Your task to perform on an android device: Search for Mexican restaurants on Maps Image 0: 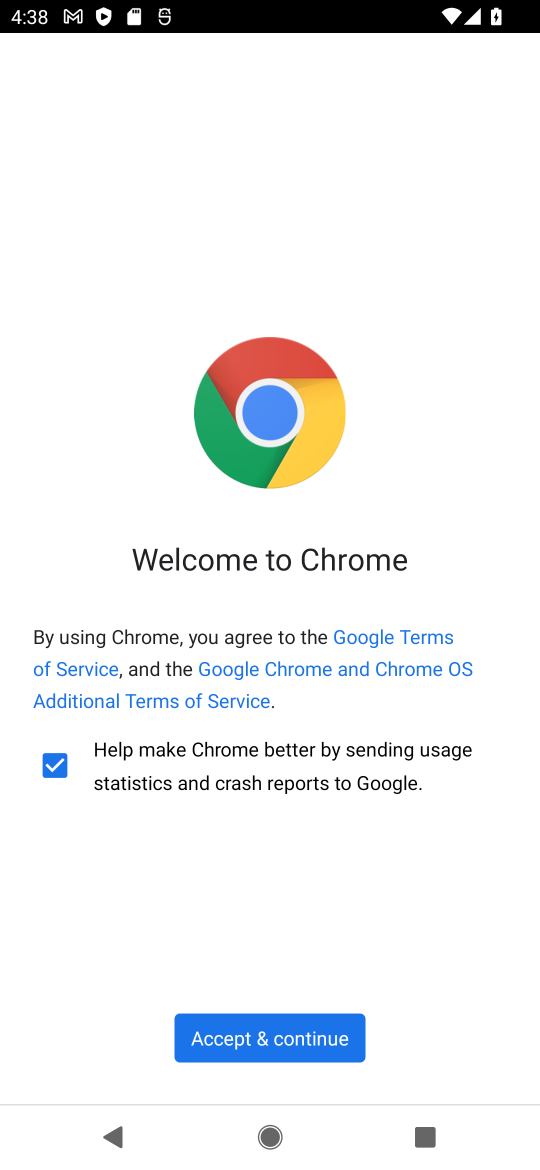
Step 0: press home button
Your task to perform on an android device: Search for Mexican restaurants on Maps Image 1: 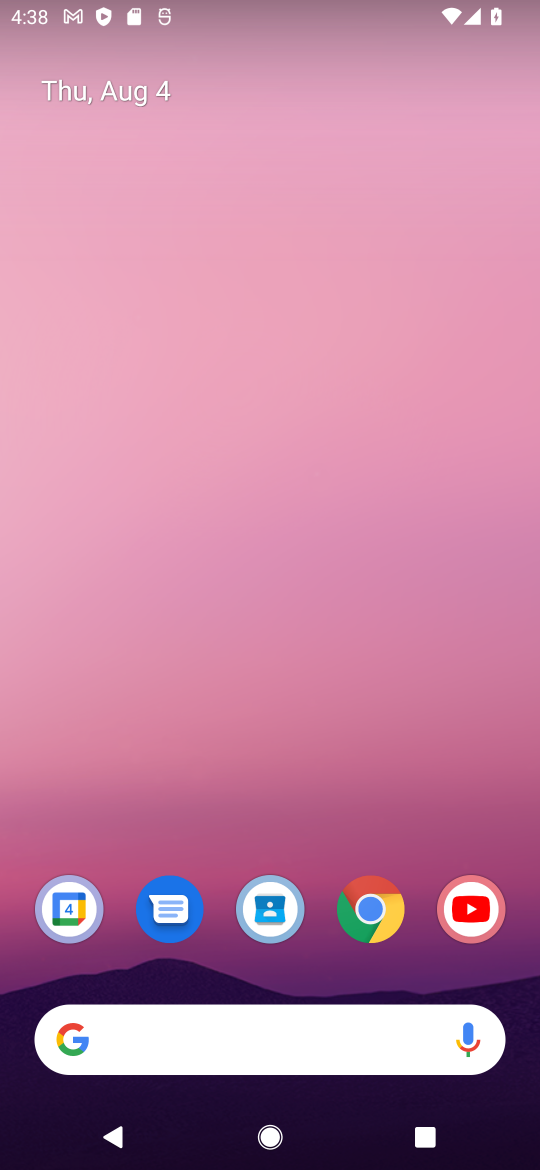
Step 1: drag from (233, 586) to (284, 13)
Your task to perform on an android device: Search for Mexican restaurants on Maps Image 2: 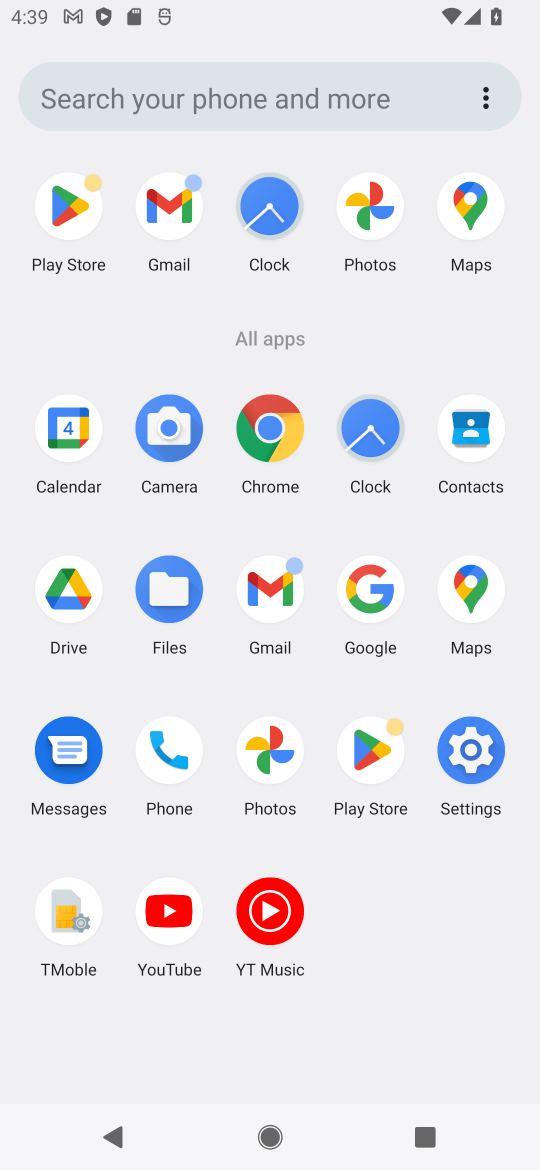
Step 2: click (489, 616)
Your task to perform on an android device: Search for Mexican restaurants on Maps Image 3: 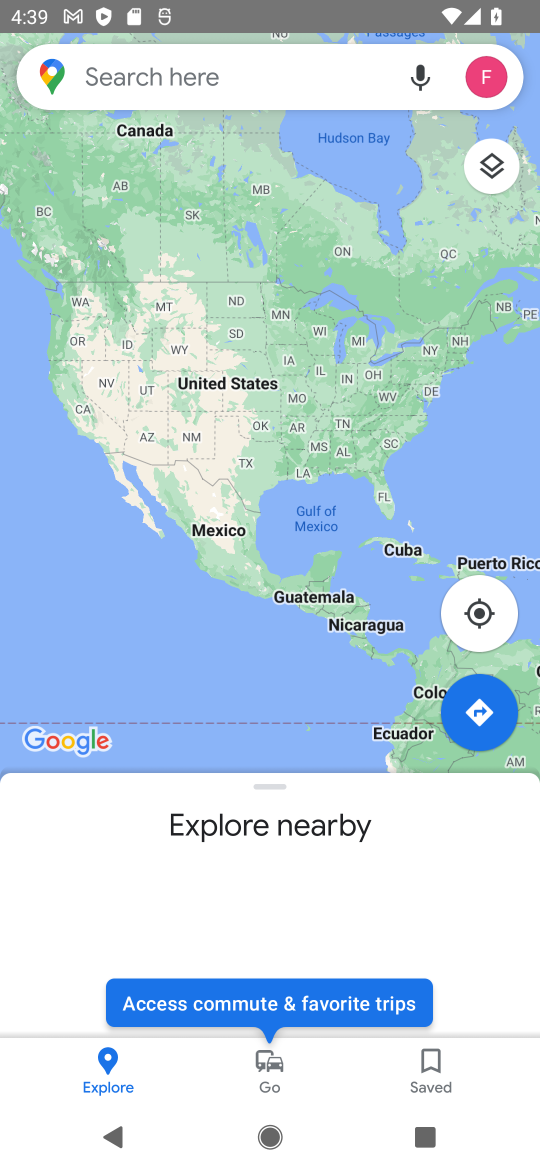
Step 3: click (237, 77)
Your task to perform on an android device: Search for Mexican restaurants on Maps Image 4: 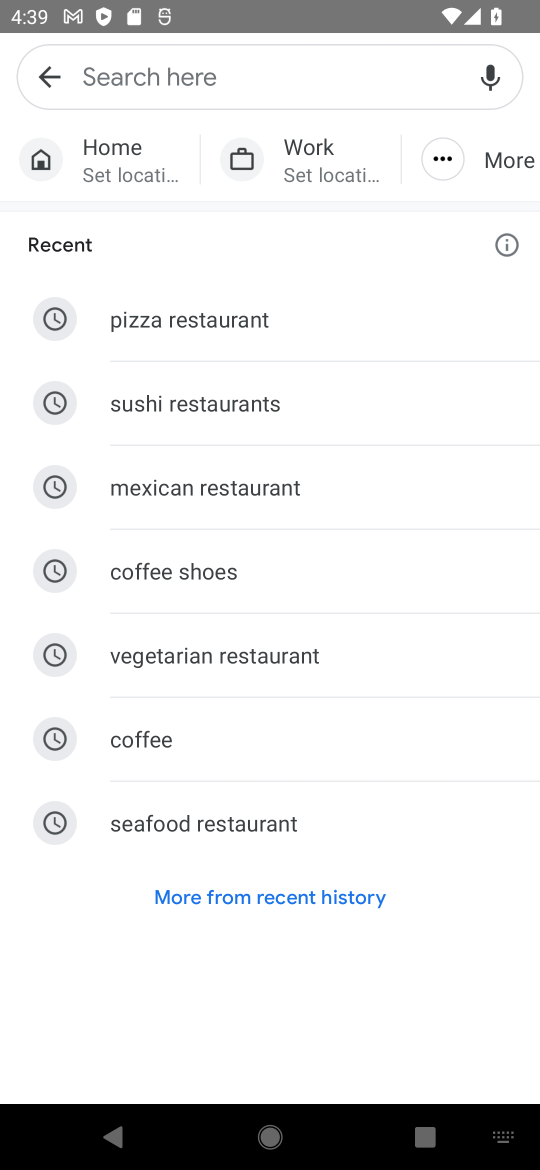
Step 4: type "mexican restaurants"
Your task to perform on an android device: Search for Mexican restaurants on Maps Image 5: 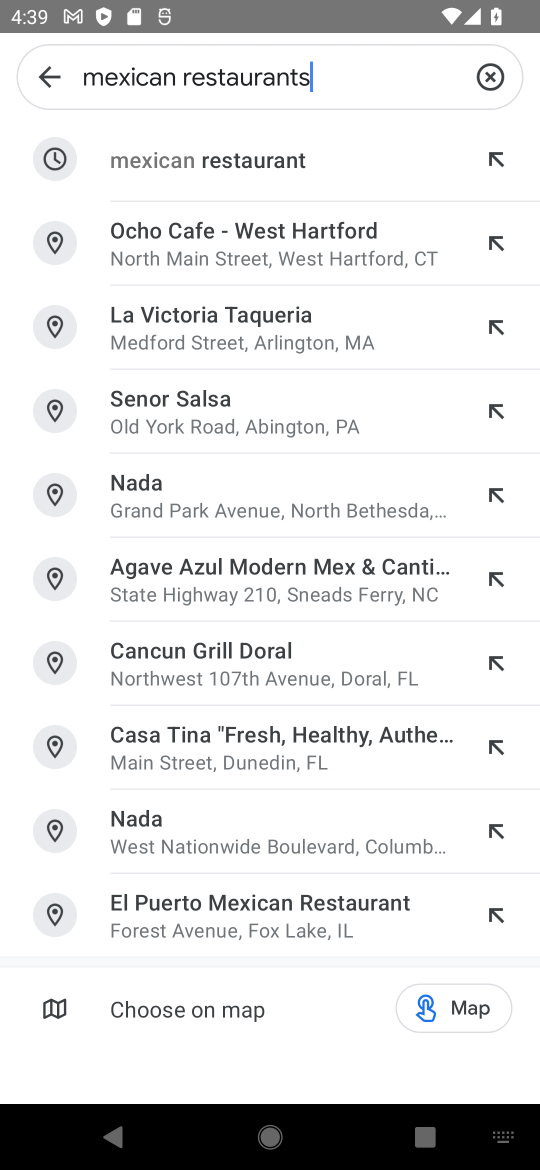
Step 5: click (292, 165)
Your task to perform on an android device: Search for Mexican restaurants on Maps Image 6: 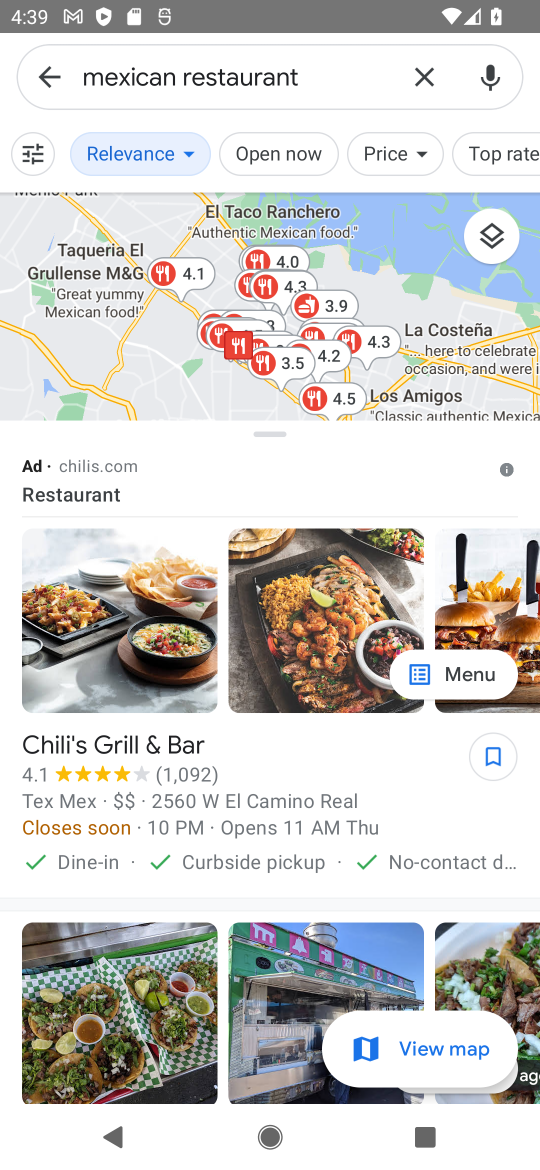
Step 6: task complete